Your task to perform on an android device: open app "Google Chrome" (install if not already installed) Image 0: 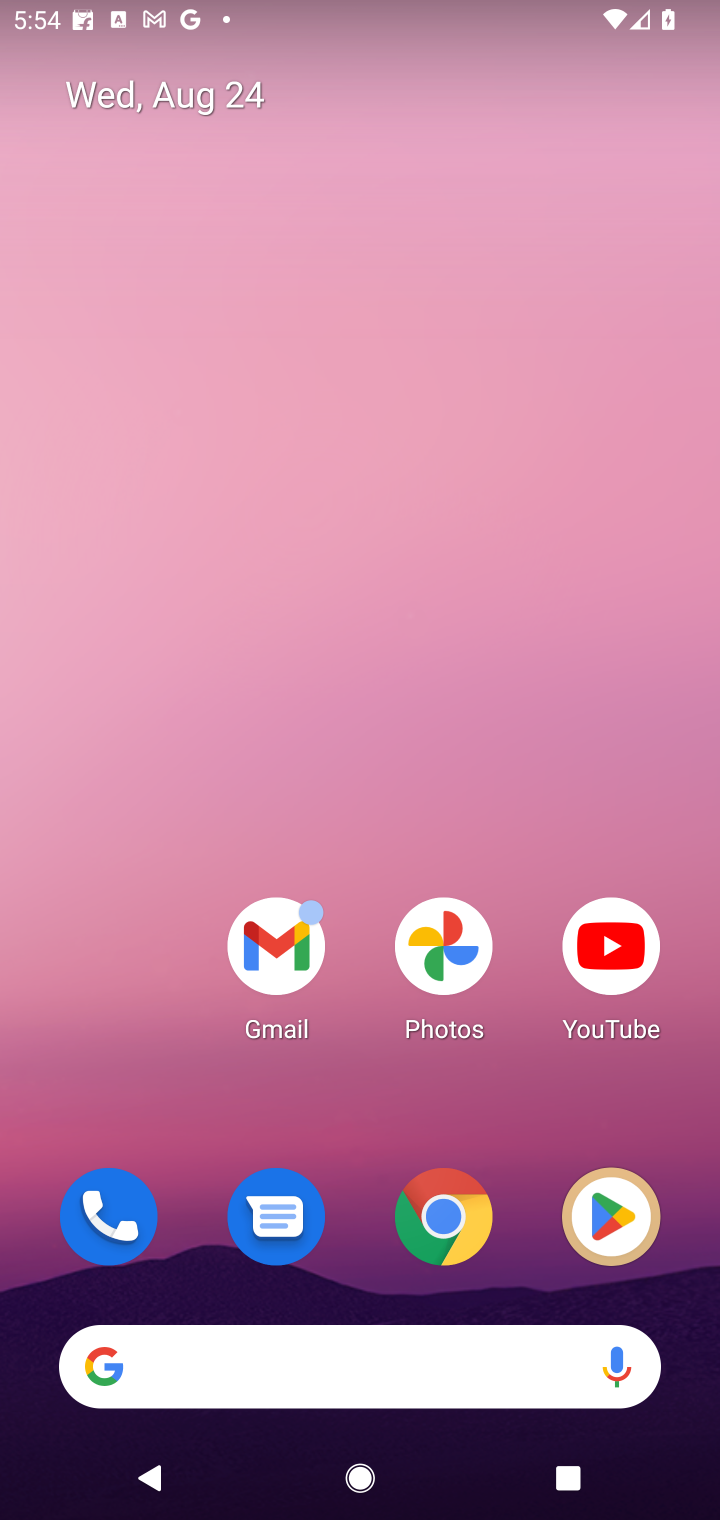
Step 0: click (628, 1206)
Your task to perform on an android device: open app "Google Chrome" (install if not already installed) Image 1: 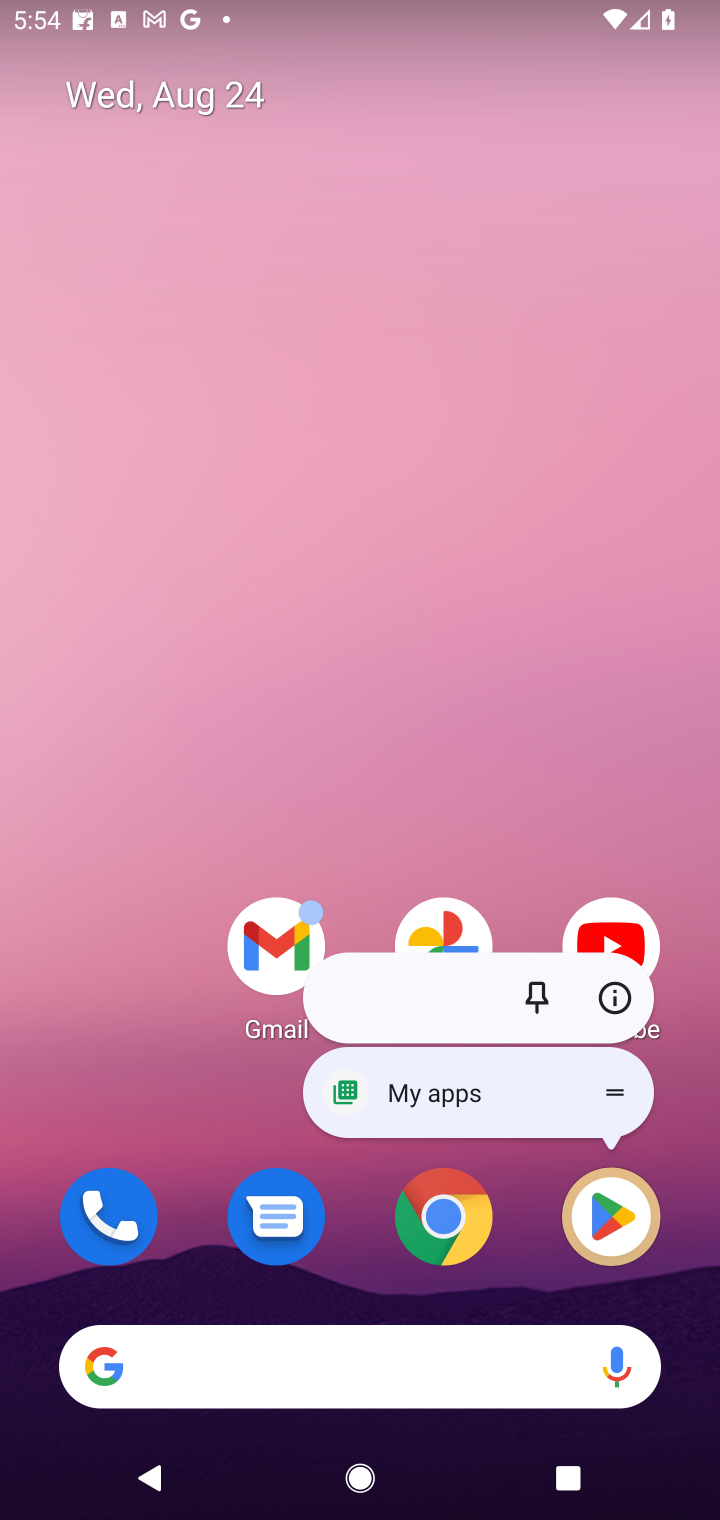
Step 1: click (595, 1231)
Your task to perform on an android device: open app "Google Chrome" (install if not already installed) Image 2: 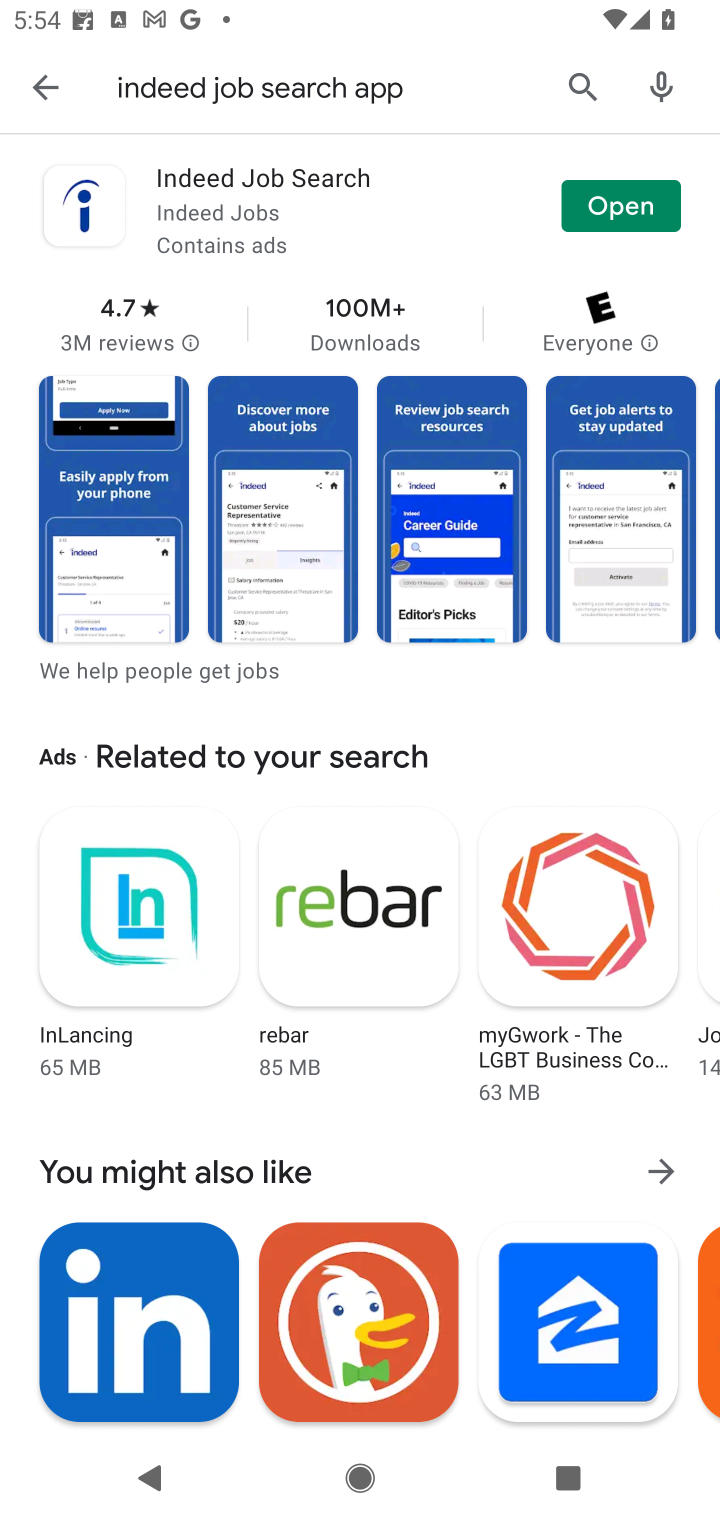
Step 2: click (572, 74)
Your task to perform on an android device: open app "Google Chrome" (install if not already installed) Image 3: 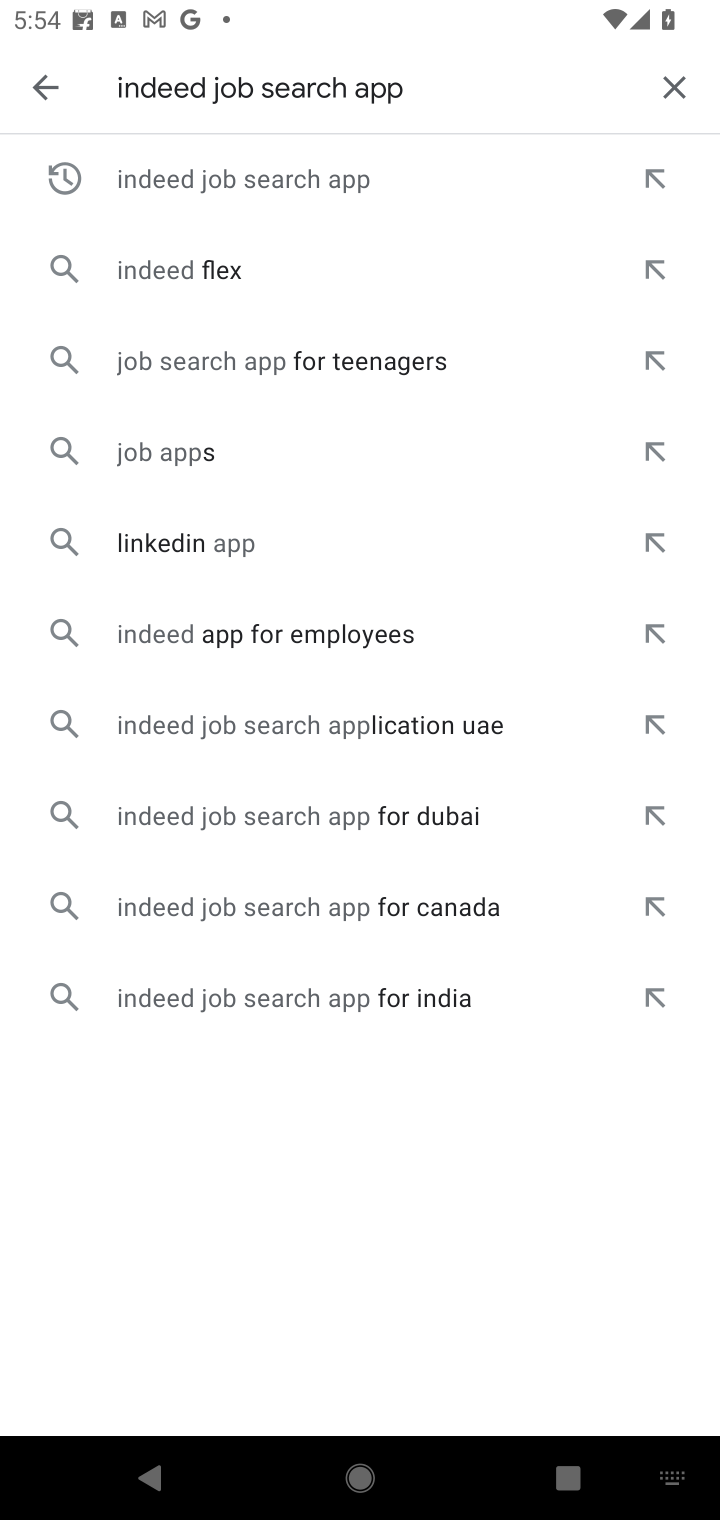
Step 3: click (664, 94)
Your task to perform on an android device: open app "Google Chrome" (install if not already installed) Image 4: 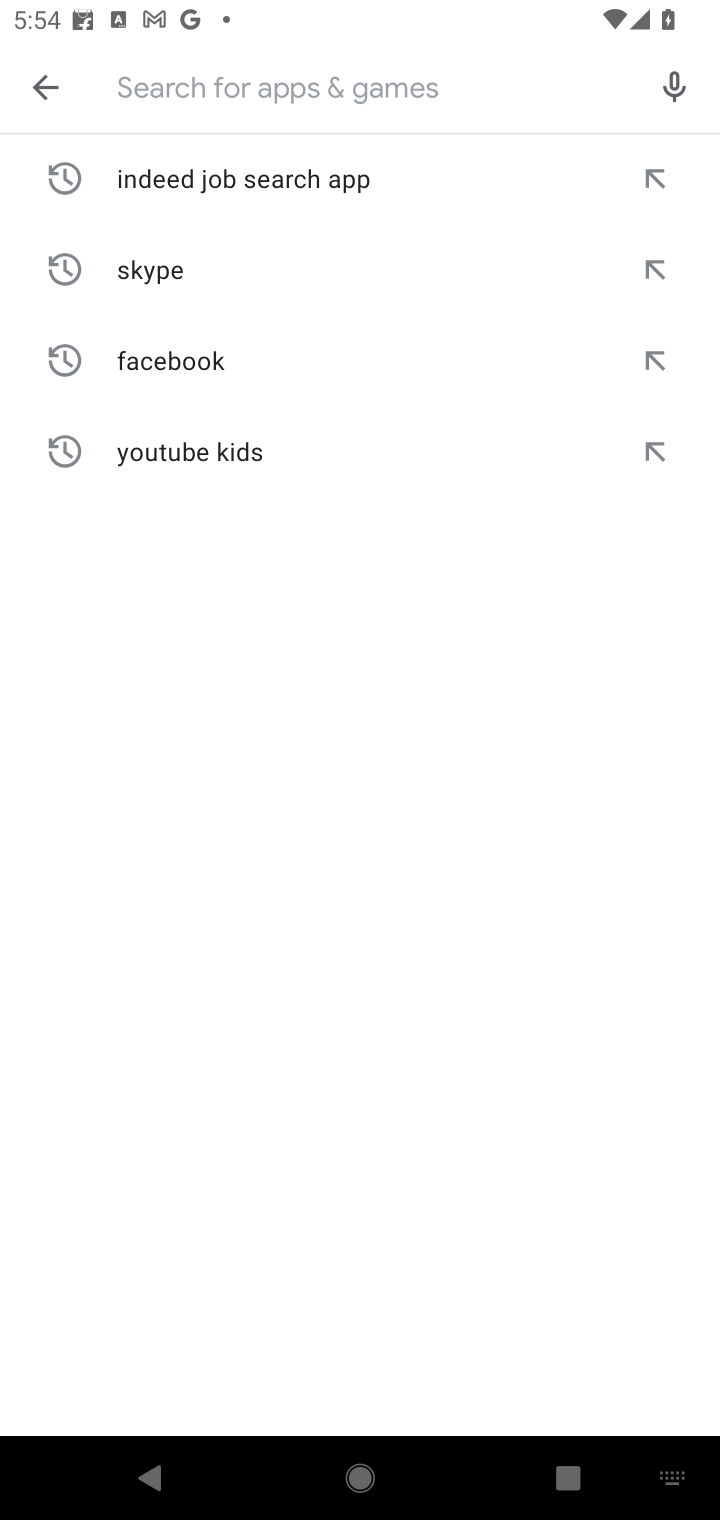
Step 4: type "Google Chrom"
Your task to perform on an android device: open app "Google Chrome" (install if not already installed) Image 5: 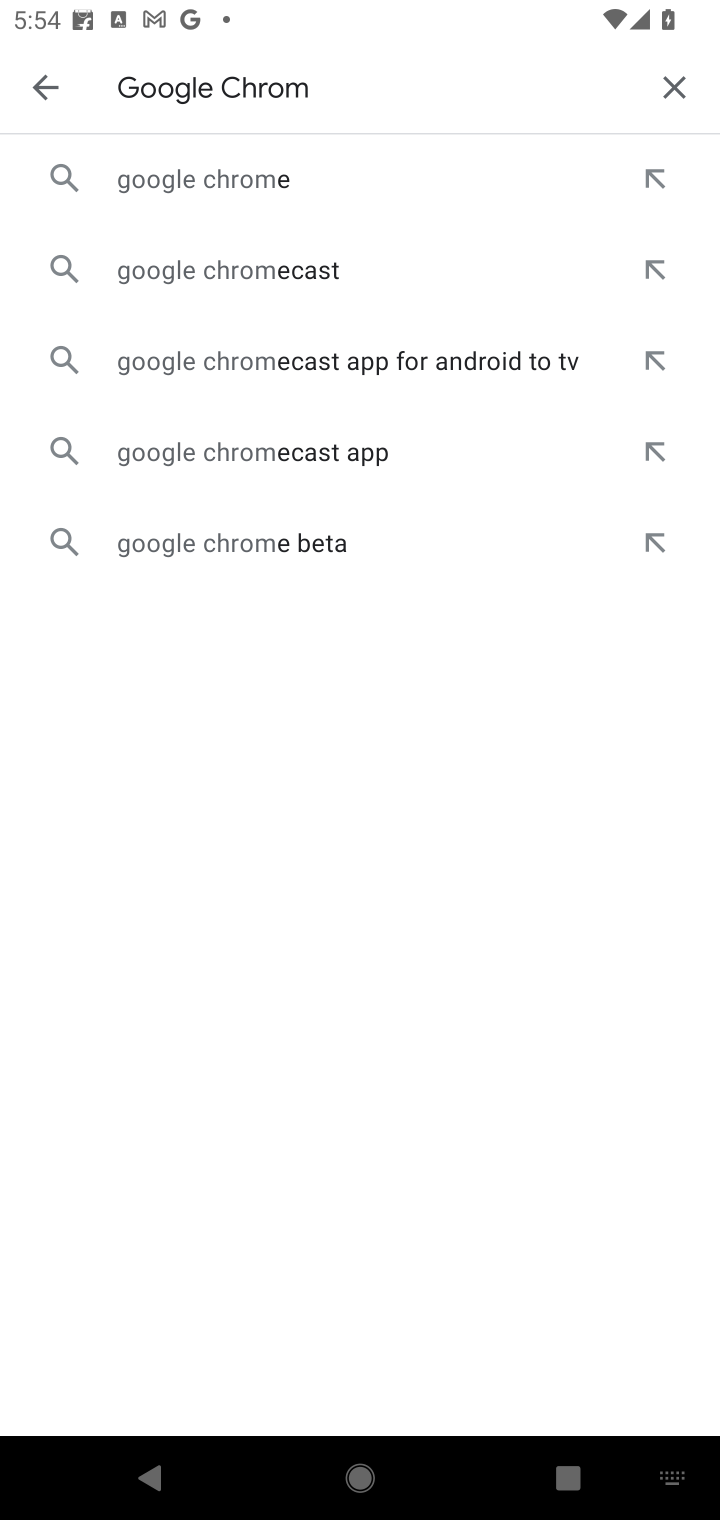
Step 5: click (228, 168)
Your task to perform on an android device: open app "Google Chrome" (install if not already installed) Image 6: 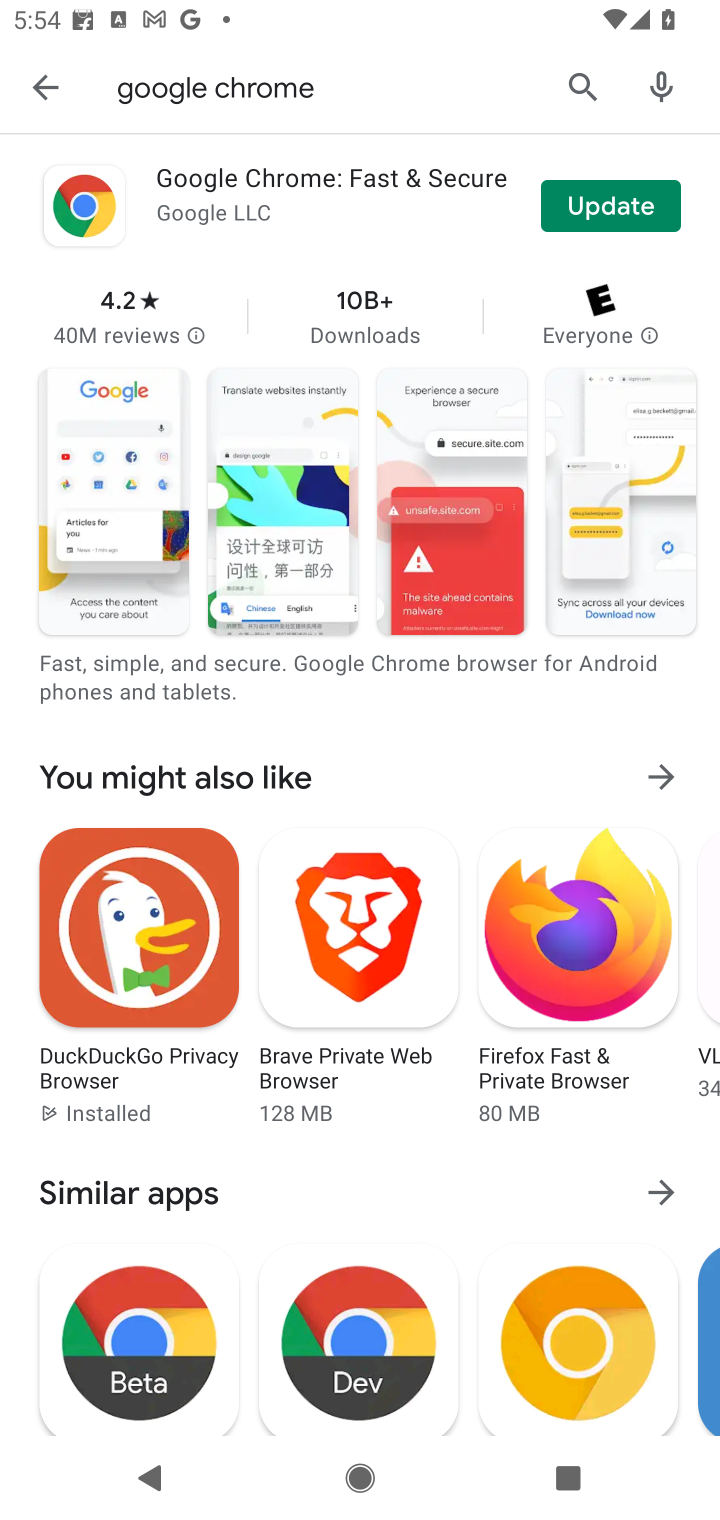
Step 6: click (411, 167)
Your task to perform on an android device: open app "Google Chrome" (install if not already installed) Image 7: 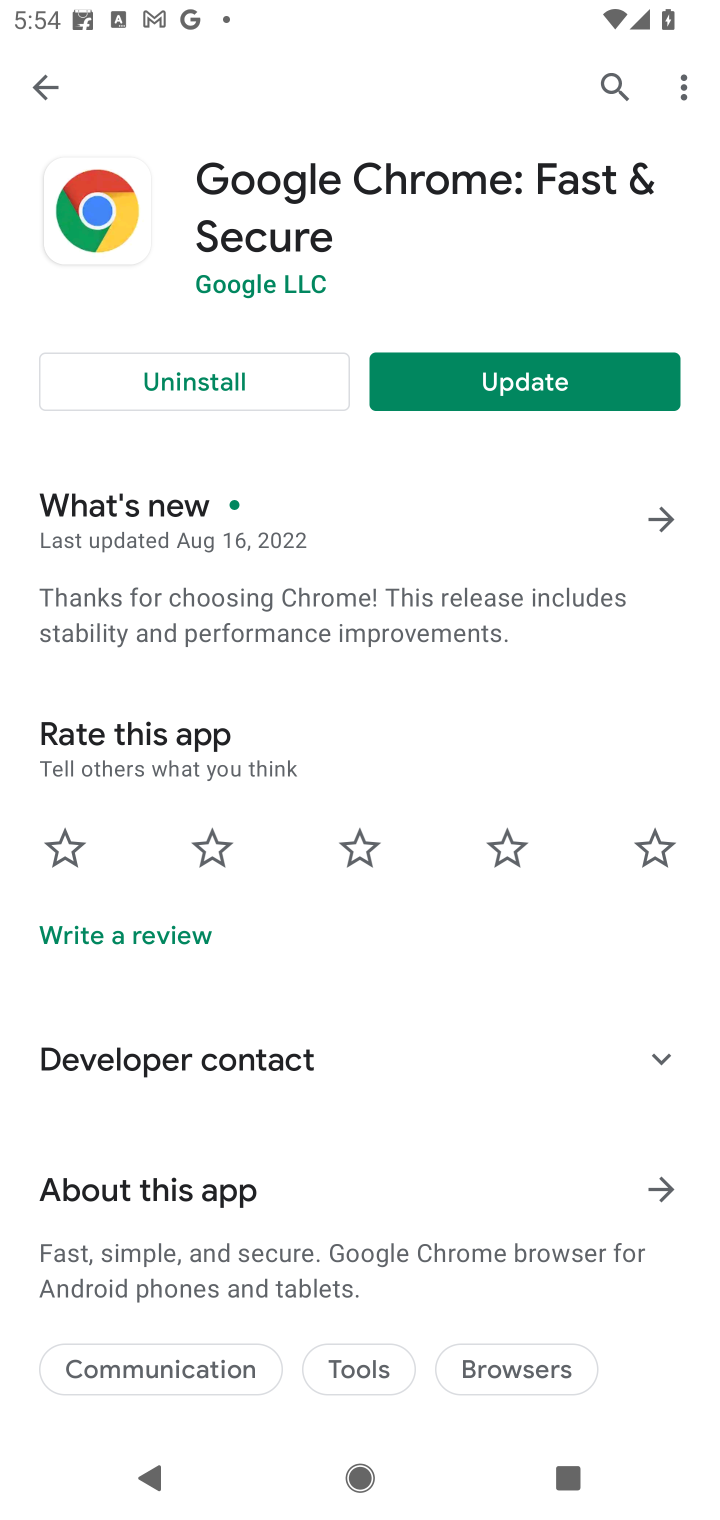
Step 7: click (546, 373)
Your task to perform on an android device: open app "Google Chrome" (install if not already installed) Image 8: 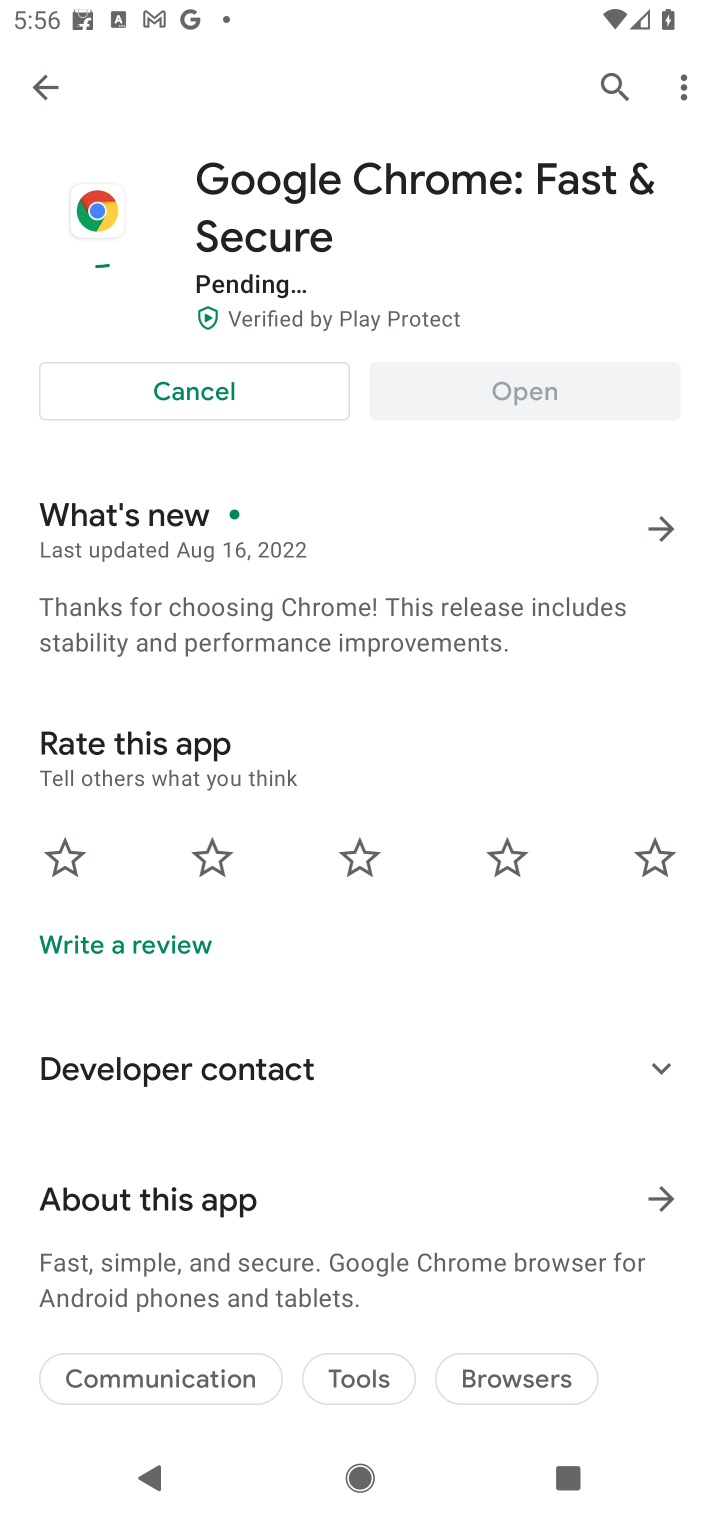
Step 8: task complete